Your task to perform on an android device: open app "Viber Messenger" Image 0: 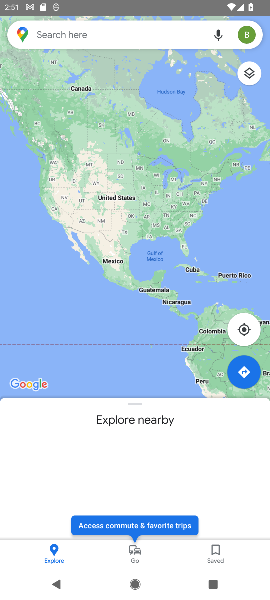
Step 0: press back button
Your task to perform on an android device: open app "Viber Messenger" Image 1: 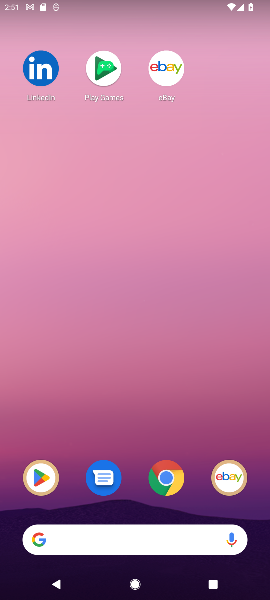
Step 1: press back button
Your task to perform on an android device: open app "Viber Messenger" Image 2: 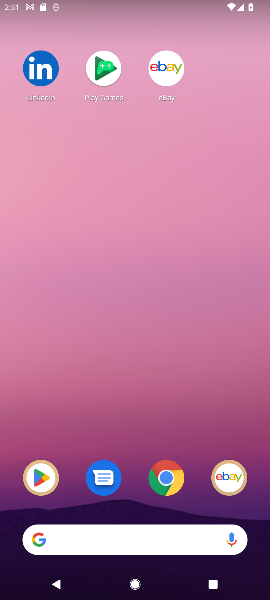
Step 2: press home button
Your task to perform on an android device: open app "Viber Messenger" Image 3: 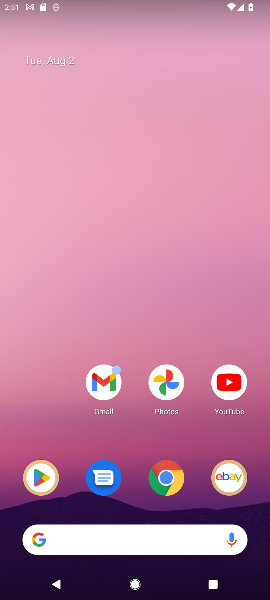
Step 3: drag from (177, 436) to (105, 59)
Your task to perform on an android device: open app "Viber Messenger" Image 4: 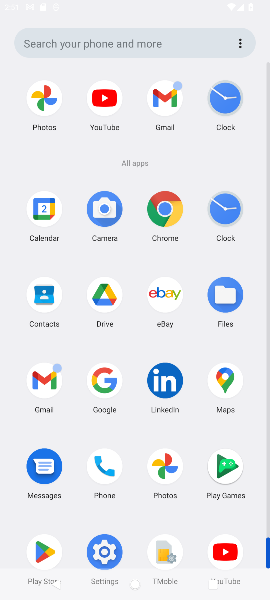
Step 4: drag from (158, 343) to (124, 90)
Your task to perform on an android device: open app "Viber Messenger" Image 5: 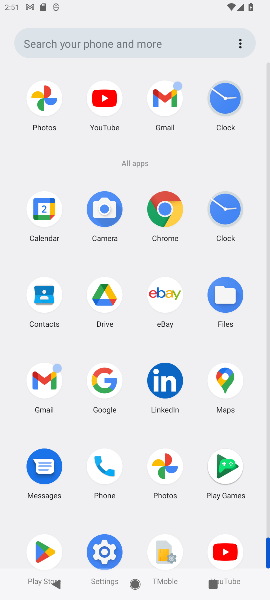
Step 5: click (28, 545)
Your task to perform on an android device: open app "Viber Messenger" Image 6: 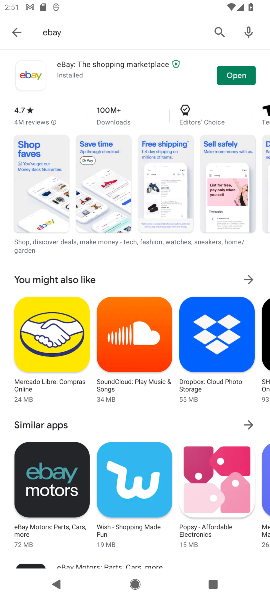
Step 6: click (36, 545)
Your task to perform on an android device: open app "Viber Messenger" Image 7: 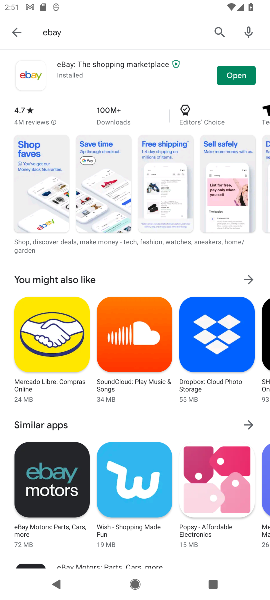
Step 7: click (40, 545)
Your task to perform on an android device: open app "Viber Messenger" Image 8: 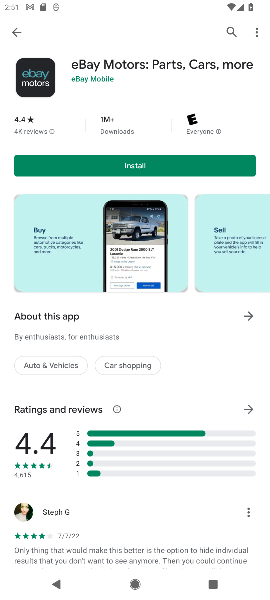
Step 8: click (7, 30)
Your task to perform on an android device: open app "Viber Messenger" Image 9: 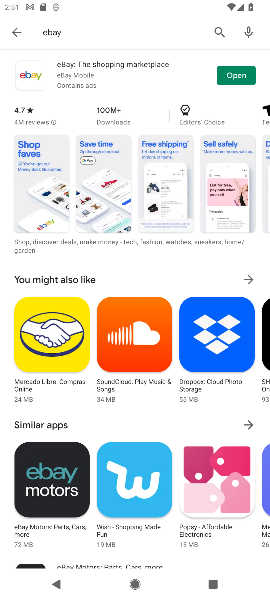
Step 9: click (19, 23)
Your task to perform on an android device: open app "Viber Messenger" Image 10: 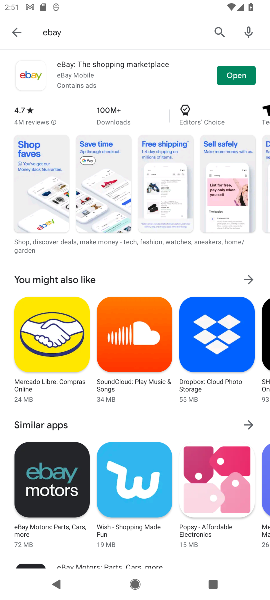
Step 10: click (20, 32)
Your task to perform on an android device: open app "Viber Messenger" Image 11: 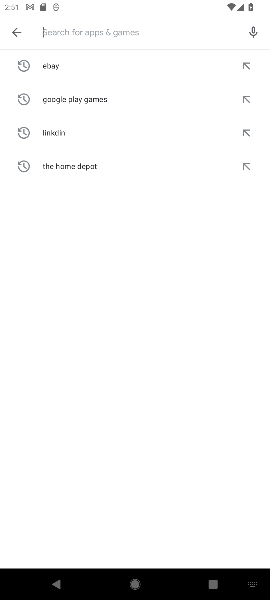
Step 11: type "viber messenger"
Your task to perform on an android device: open app "Viber Messenger" Image 12: 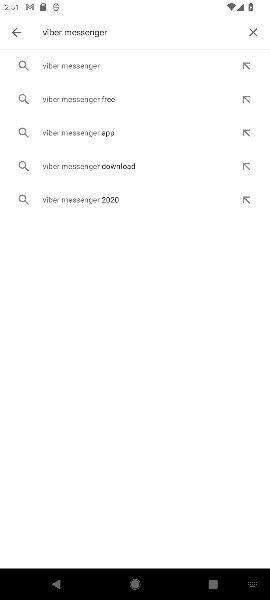
Step 12: click (69, 67)
Your task to perform on an android device: open app "Viber Messenger" Image 13: 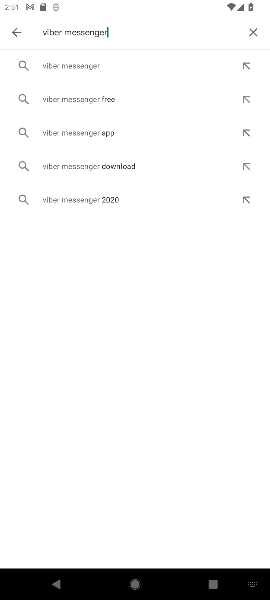
Step 13: click (68, 67)
Your task to perform on an android device: open app "Viber Messenger" Image 14: 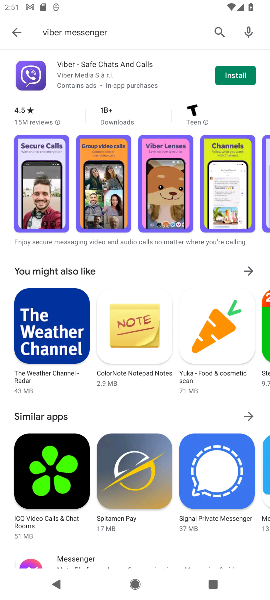
Step 14: click (248, 87)
Your task to perform on an android device: open app "Viber Messenger" Image 15: 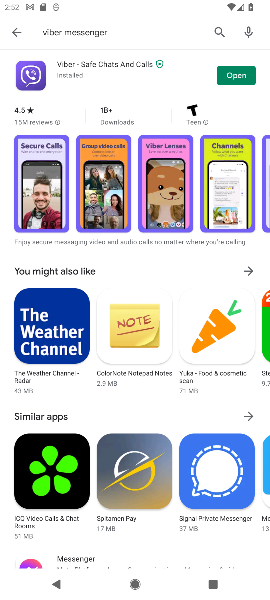
Step 15: click (233, 78)
Your task to perform on an android device: open app "Viber Messenger" Image 16: 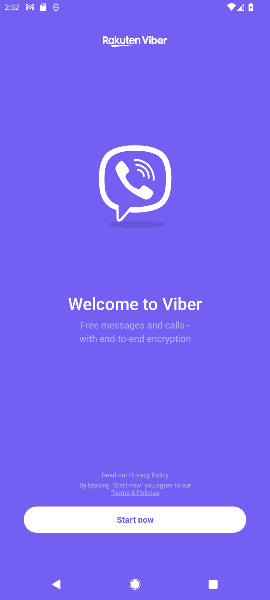
Step 16: click (156, 514)
Your task to perform on an android device: open app "Viber Messenger" Image 17: 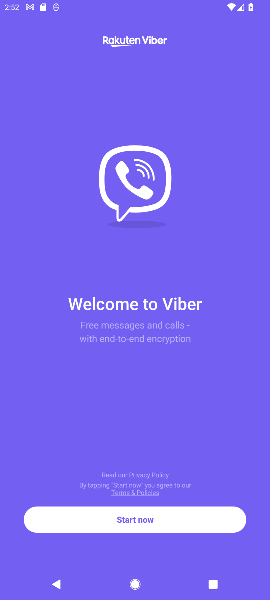
Step 17: click (154, 520)
Your task to perform on an android device: open app "Viber Messenger" Image 18: 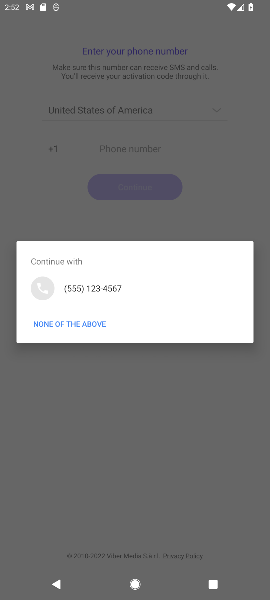
Step 18: click (79, 319)
Your task to perform on an android device: open app "Viber Messenger" Image 19: 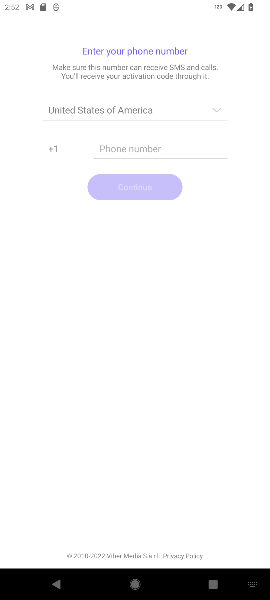
Step 19: task complete